Your task to perform on an android device: Play the last video I watched on Youtube Image 0: 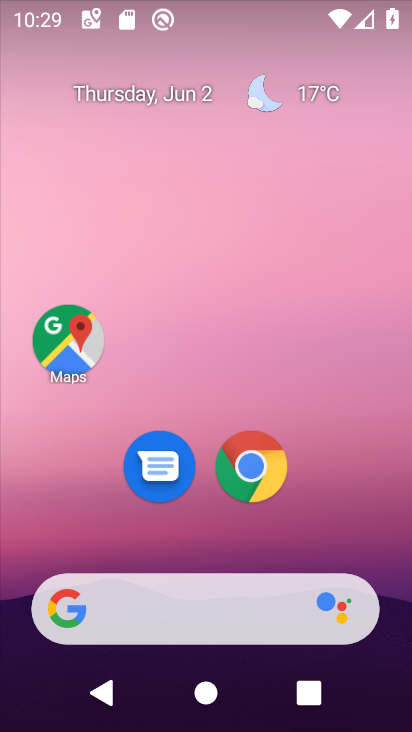
Step 0: drag from (260, 515) to (301, 215)
Your task to perform on an android device: Play the last video I watched on Youtube Image 1: 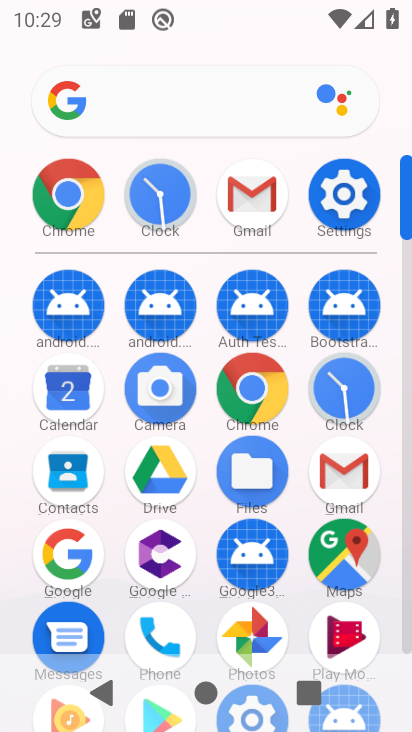
Step 1: drag from (312, 580) to (263, 254)
Your task to perform on an android device: Play the last video I watched on Youtube Image 2: 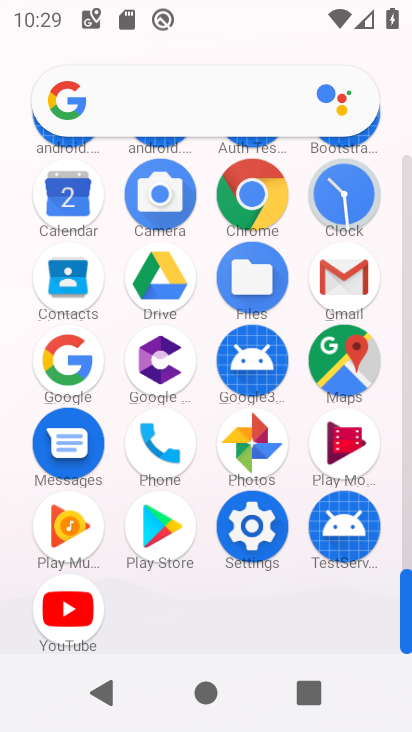
Step 2: click (71, 600)
Your task to perform on an android device: Play the last video I watched on Youtube Image 3: 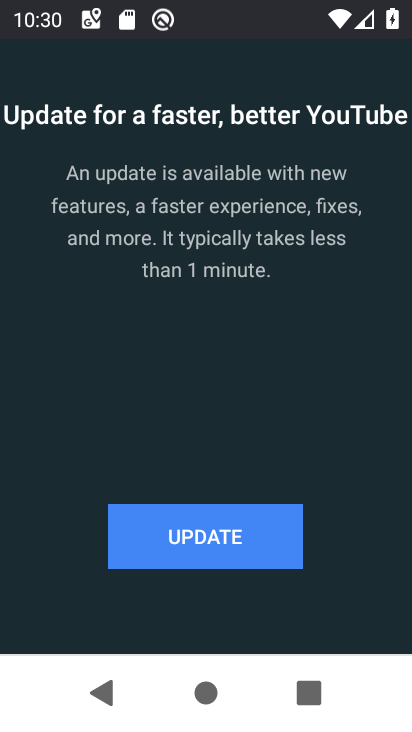
Step 3: task complete